Your task to perform on an android device: Check the weather Image 0: 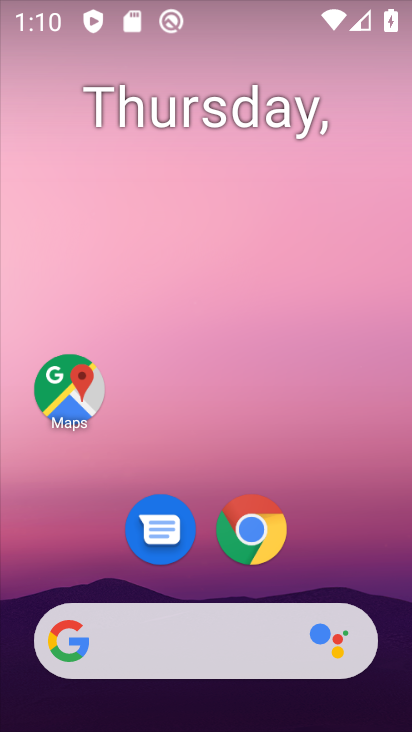
Step 0: drag from (217, 724) to (210, 143)
Your task to perform on an android device: Check the weather Image 1: 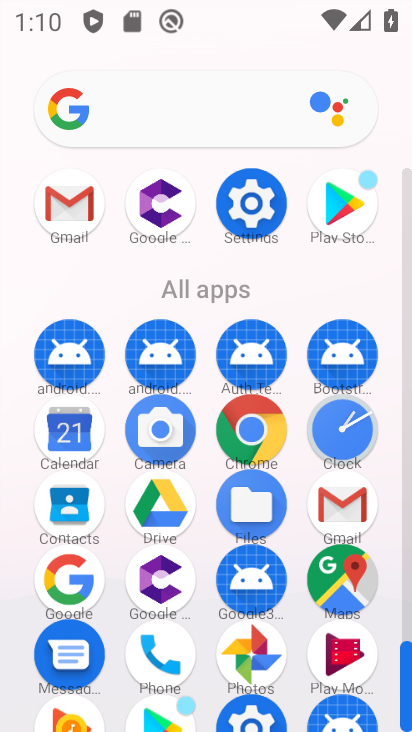
Step 1: click (82, 580)
Your task to perform on an android device: Check the weather Image 2: 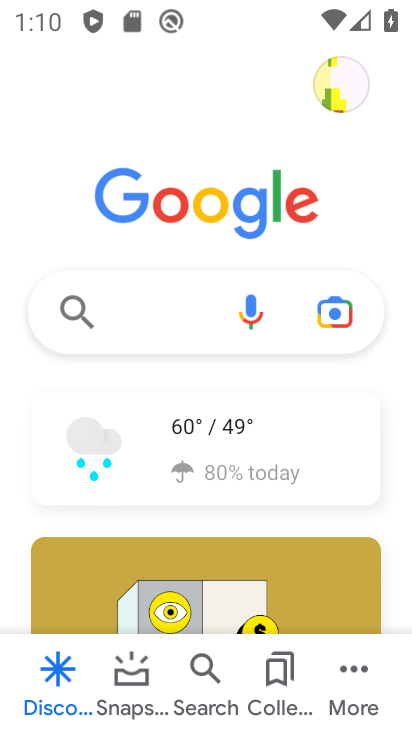
Step 2: click (214, 441)
Your task to perform on an android device: Check the weather Image 3: 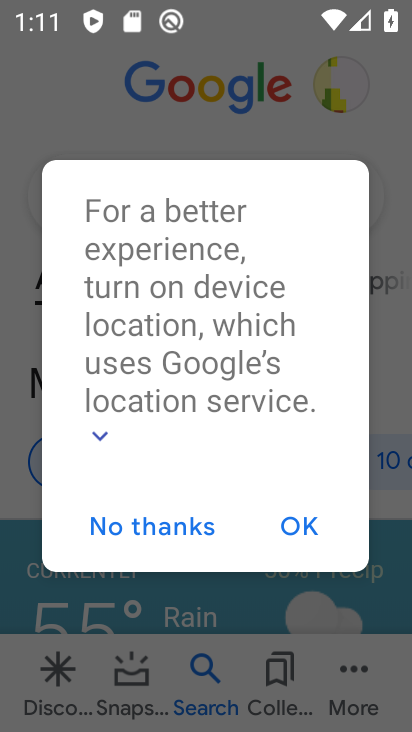
Step 3: click (298, 526)
Your task to perform on an android device: Check the weather Image 4: 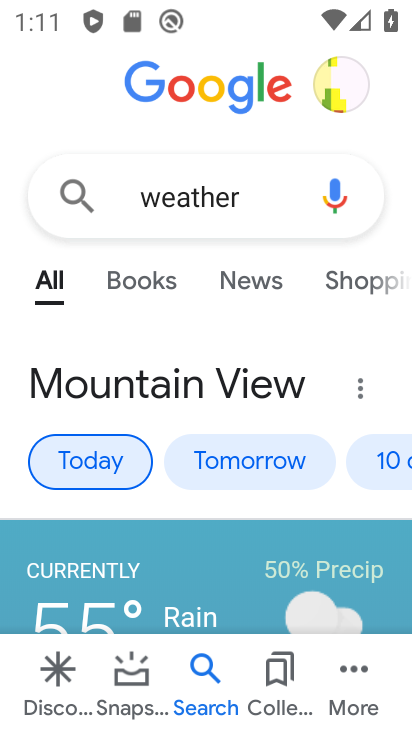
Step 4: task complete